Your task to perform on an android device: Go to internet settings Image 0: 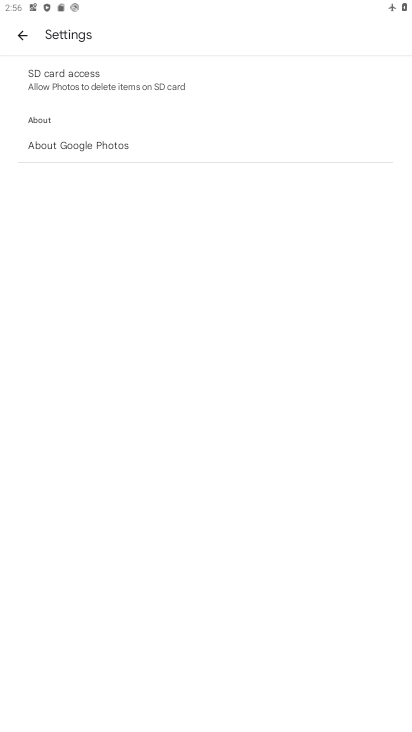
Step 0: press home button
Your task to perform on an android device: Go to internet settings Image 1: 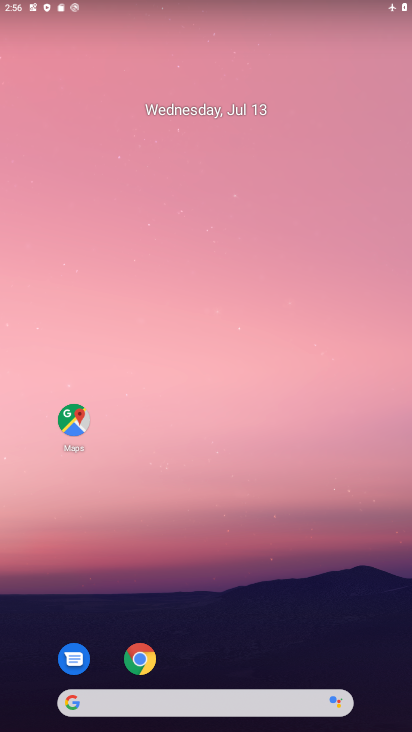
Step 1: drag from (373, 643) to (362, 85)
Your task to perform on an android device: Go to internet settings Image 2: 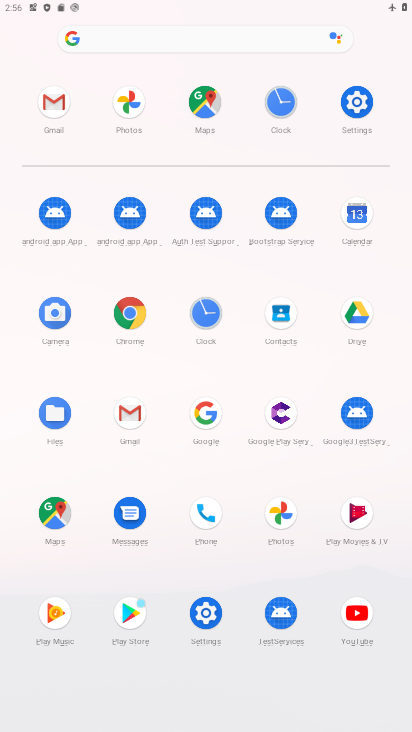
Step 2: click (204, 615)
Your task to perform on an android device: Go to internet settings Image 3: 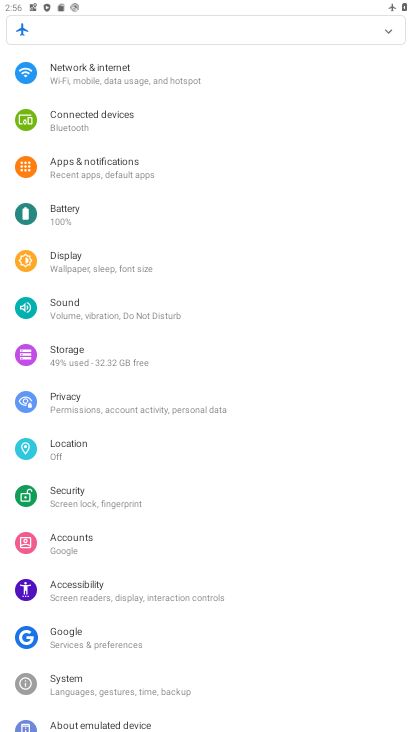
Step 3: click (64, 75)
Your task to perform on an android device: Go to internet settings Image 4: 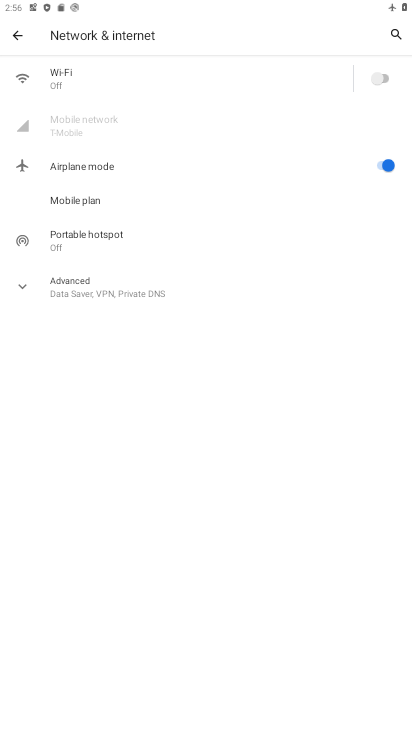
Step 4: click (48, 60)
Your task to perform on an android device: Go to internet settings Image 5: 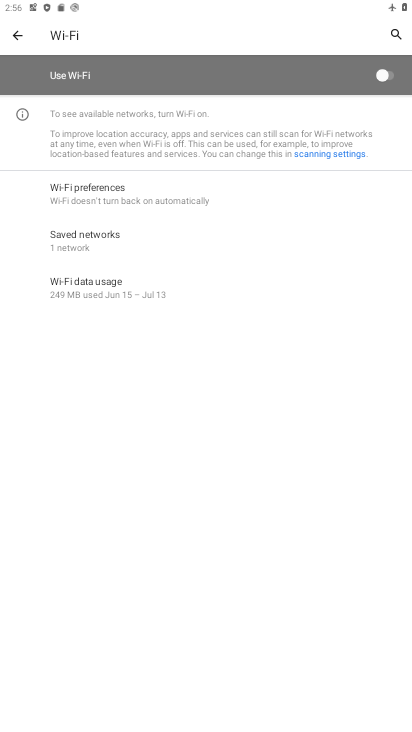
Step 5: task complete